Your task to perform on an android device: Is it going to rain this weekend? Image 0: 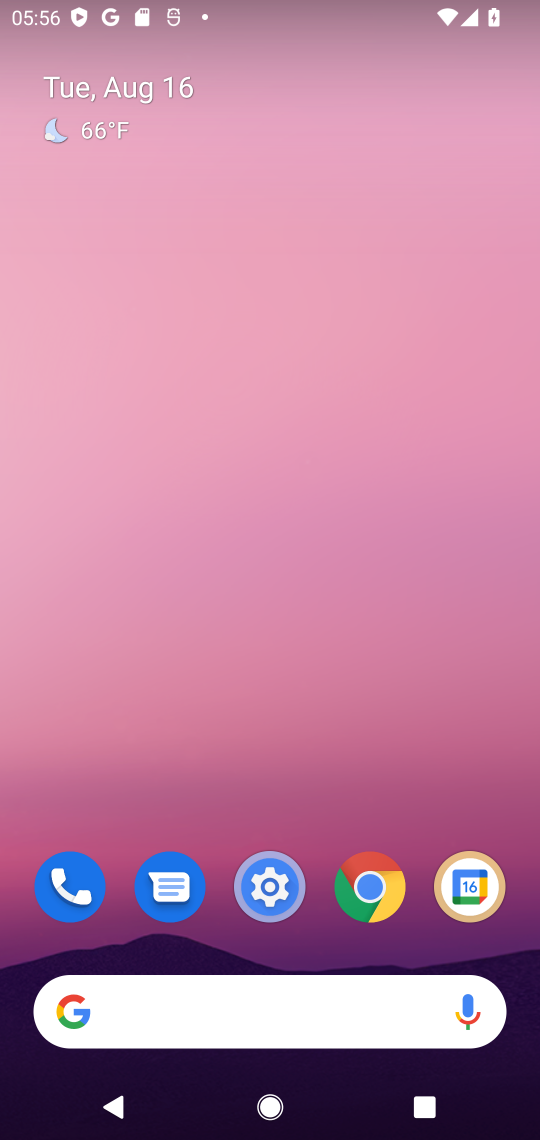
Step 0: click (100, 129)
Your task to perform on an android device: Is it going to rain this weekend? Image 1: 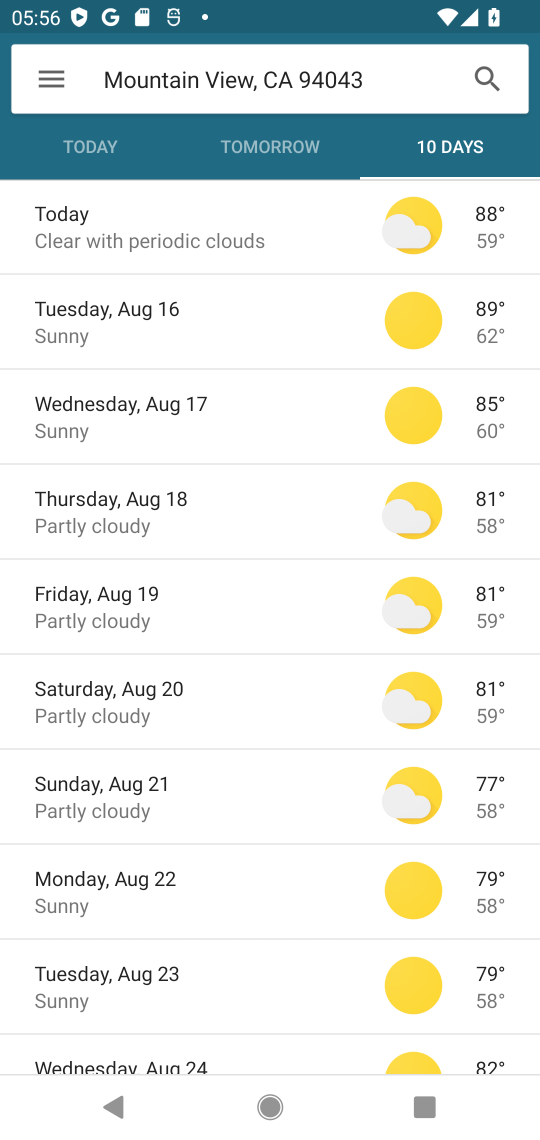
Step 1: task complete